Your task to perform on an android device: Search for macbook pro 15 inch on target, select the first entry, and add it to the cart. Image 0: 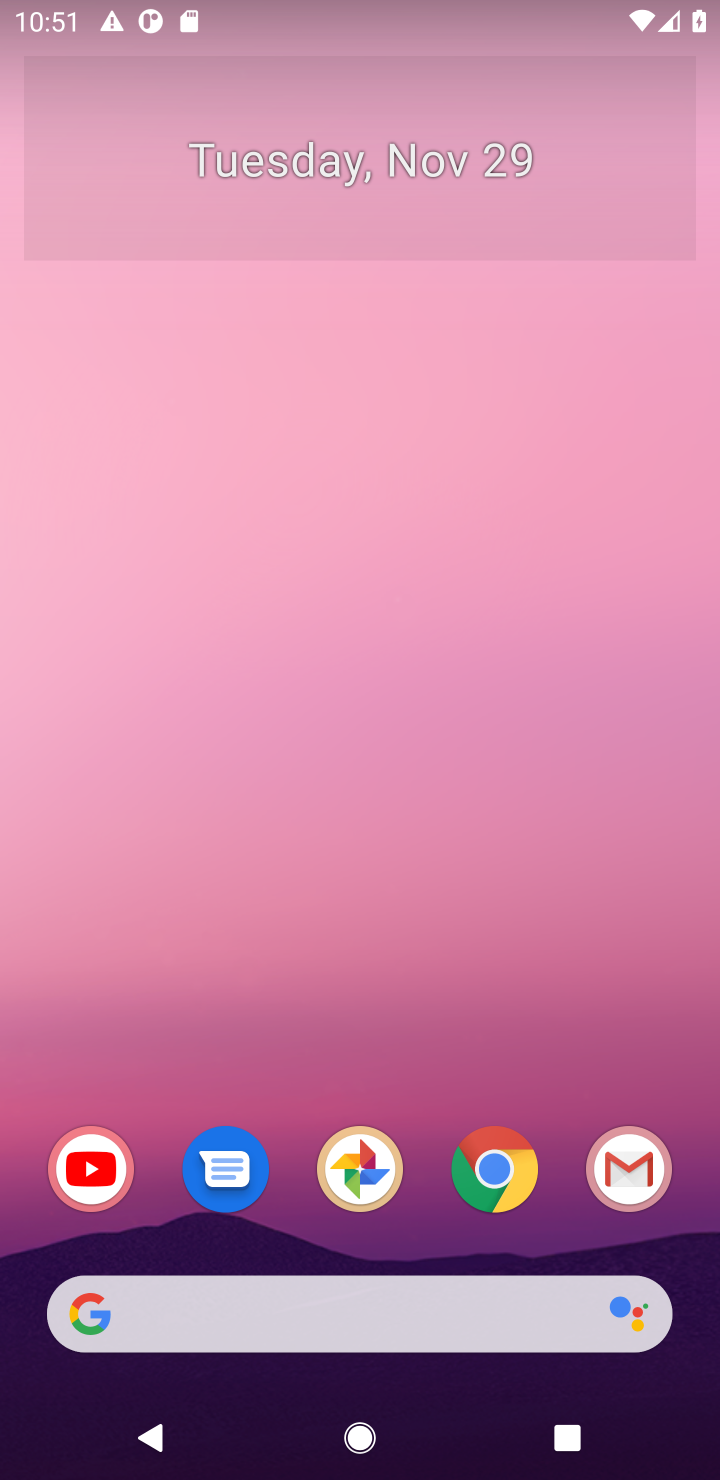
Step 0: click (351, 1299)
Your task to perform on an android device: Search for macbook pro 15 inch on target, select the first entry, and add it to the cart. Image 1: 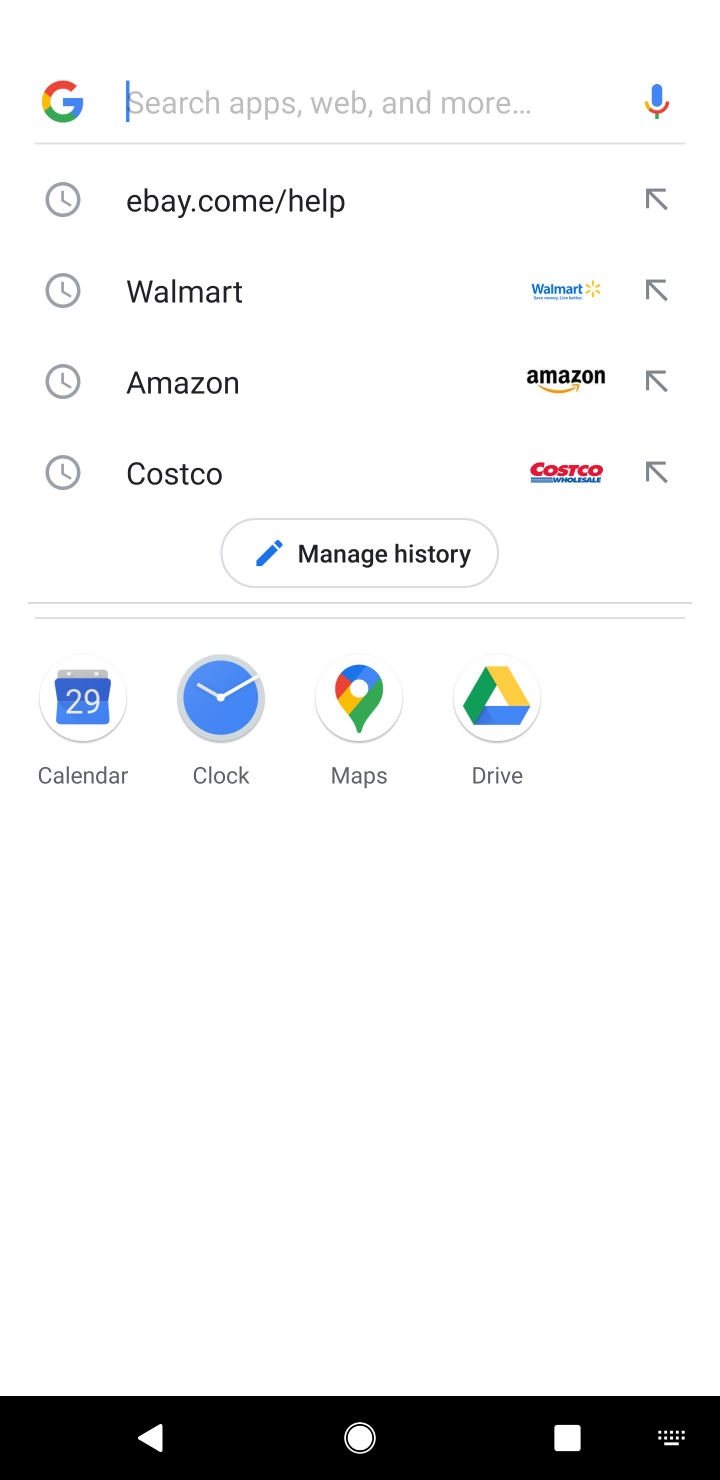
Step 1: type "target"
Your task to perform on an android device: Search for macbook pro 15 inch on target, select the first entry, and add it to the cart. Image 2: 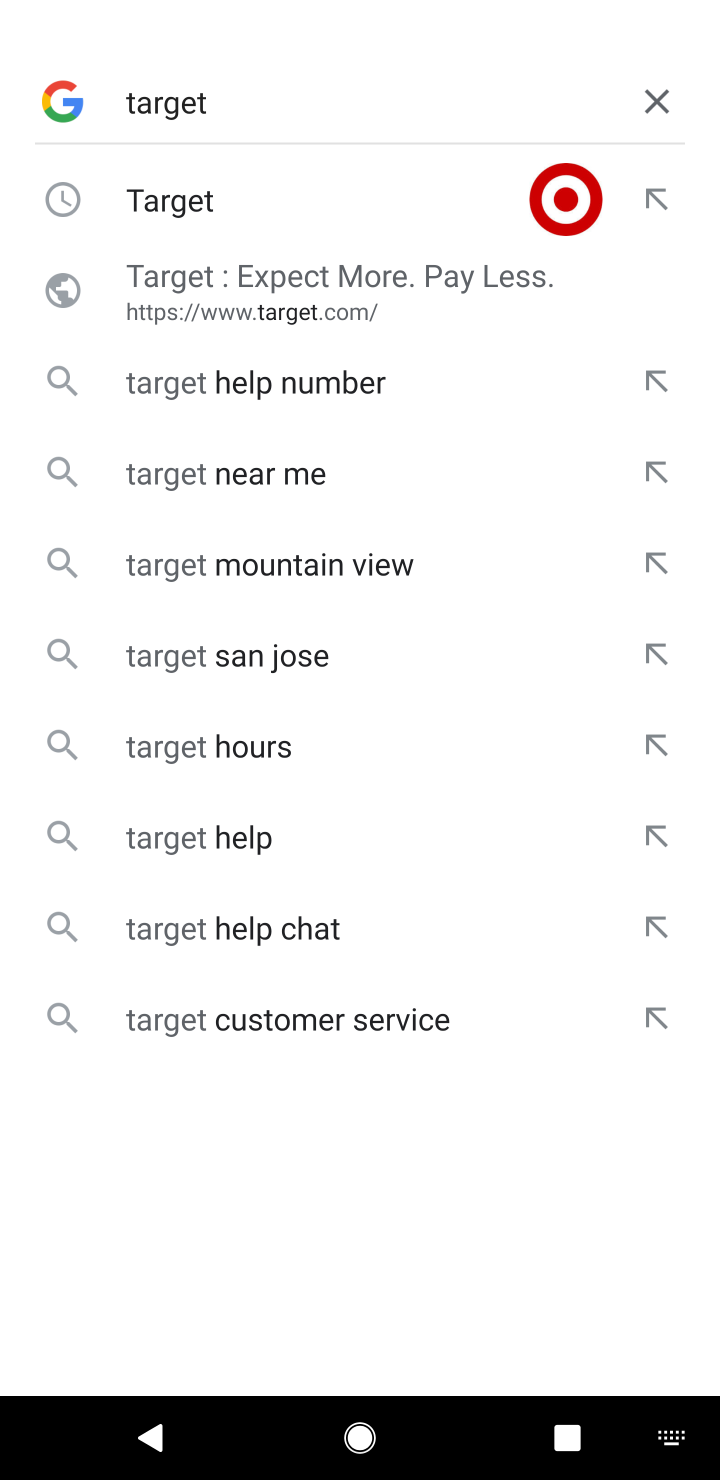
Step 2: click (307, 209)
Your task to perform on an android device: Search for macbook pro 15 inch on target, select the first entry, and add it to the cart. Image 3: 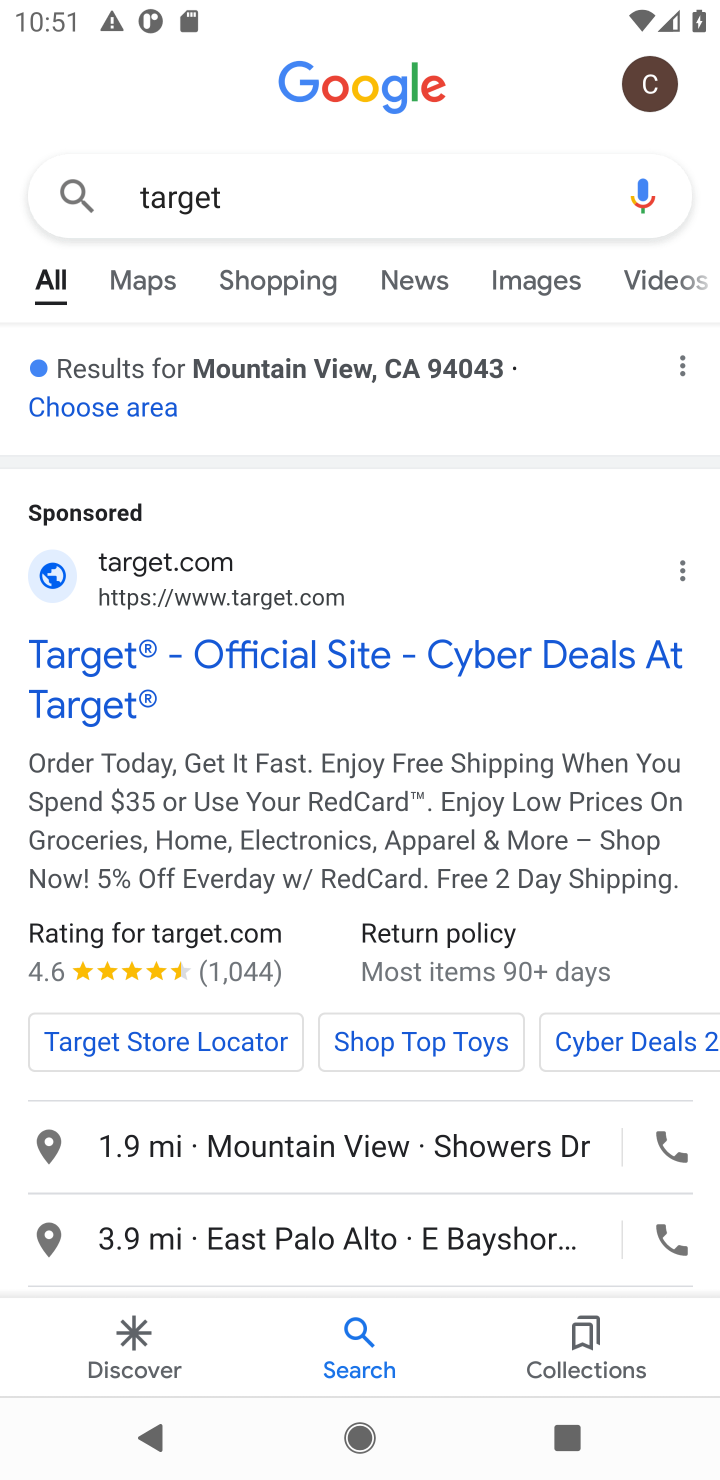
Step 3: click (193, 731)
Your task to perform on an android device: Search for macbook pro 15 inch on target, select the first entry, and add it to the cart. Image 4: 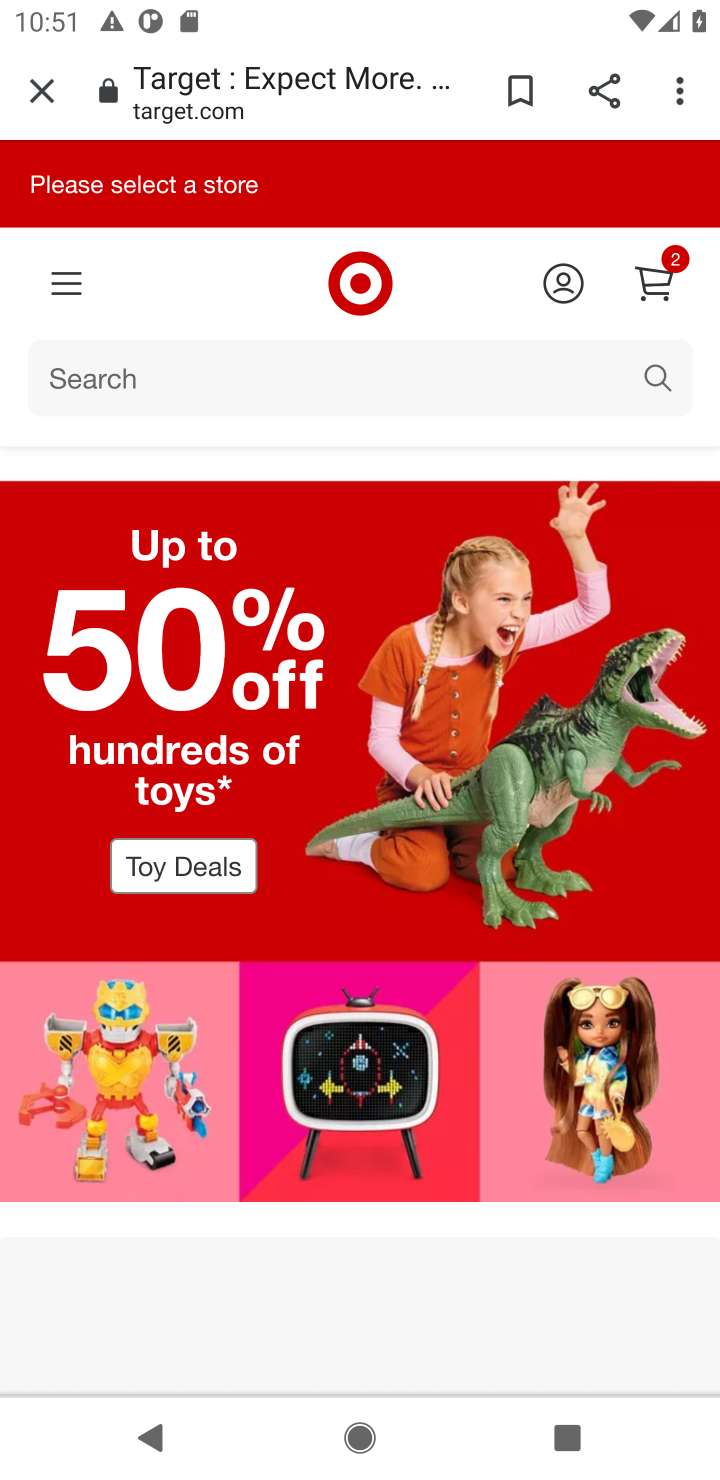
Step 4: click (73, 393)
Your task to perform on an android device: Search for macbook pro 15 inch on target, select the first entry, and add it to the cart. Image 5: 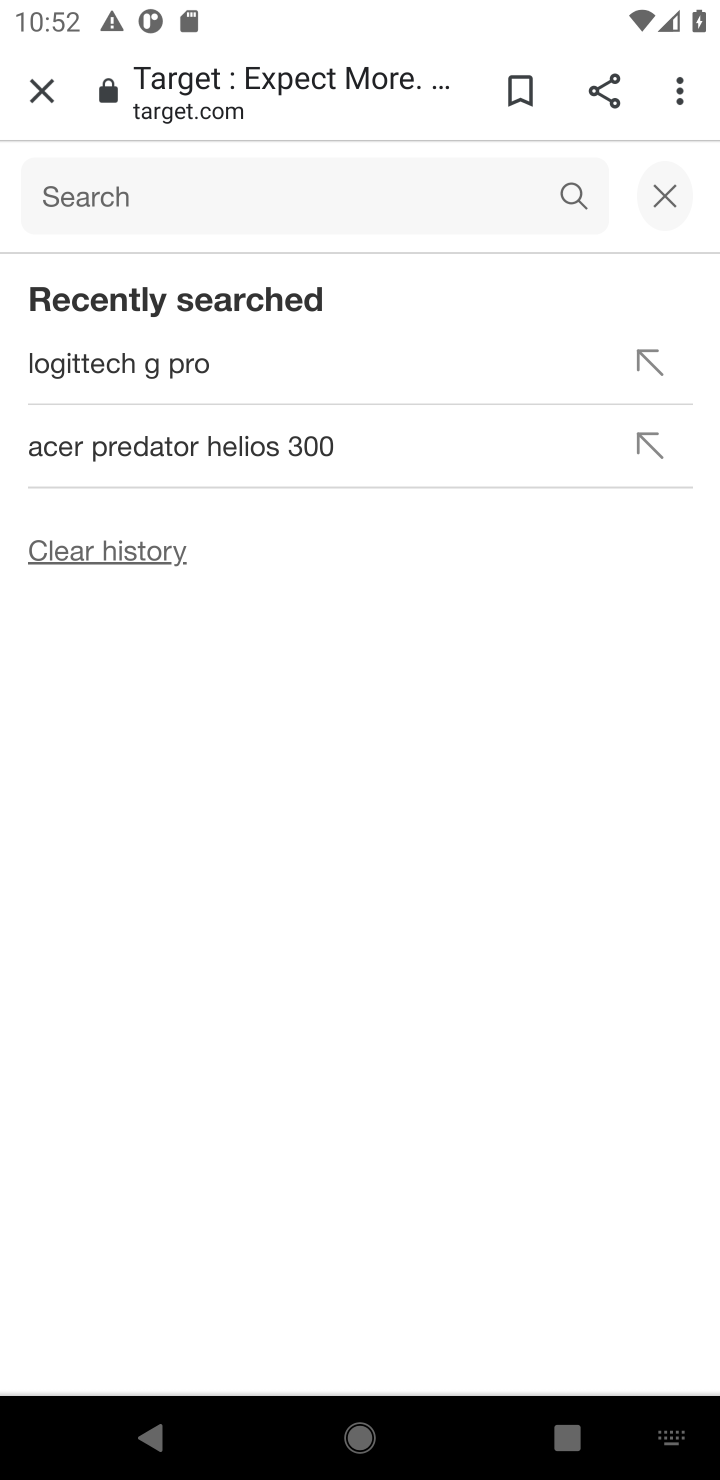
Step 5: type "macbook pro 15"
Your task to perform on an android device: Search for macbook pro 15 inch on target, select the first entry, and add it to the cart. Image 6: 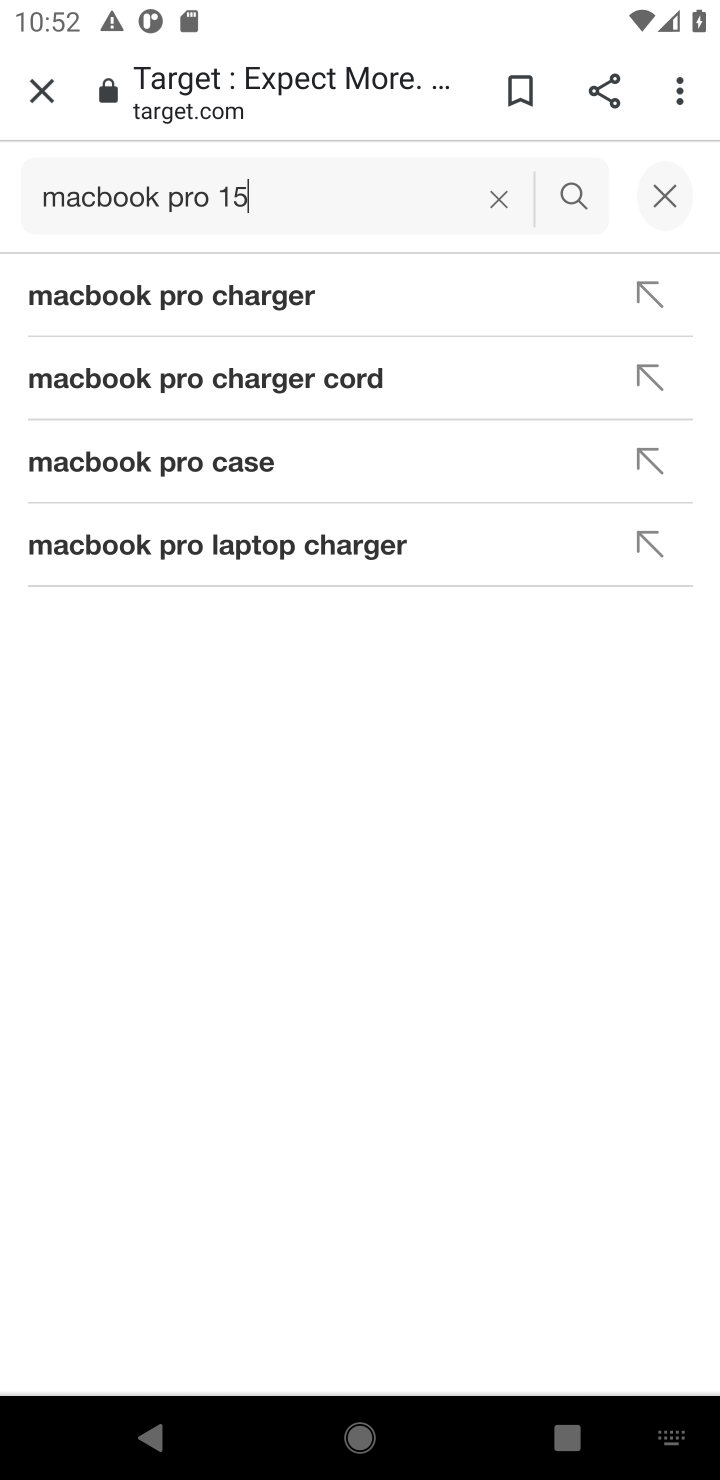
Step 6: click (568, 184)
Your task to perform on an android device: Search for macbook pro 15 inch on target, select the first entry, and add it to the cart. Image 7: 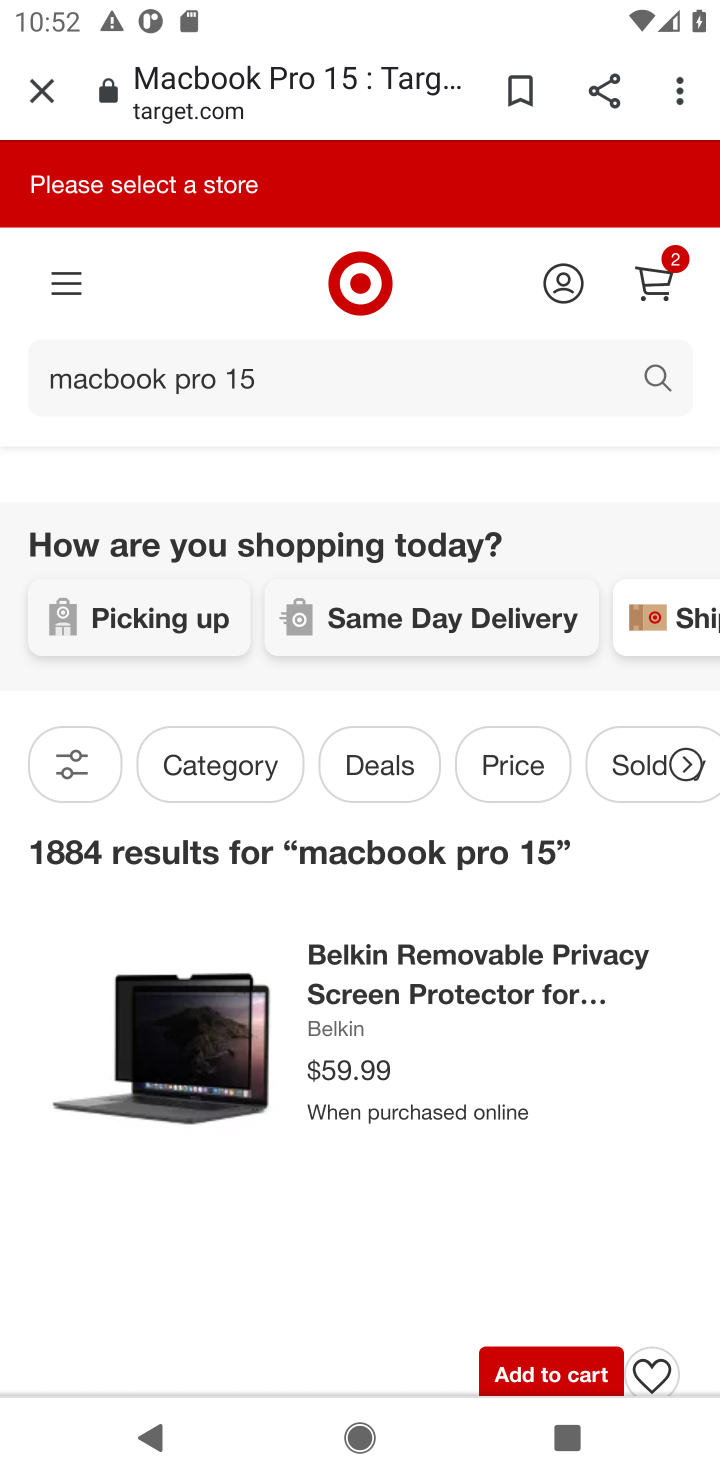
Step 7: click (559, 1387)
Your task to perform on an android device: Search for macbook pro 15 inch on target, select the first entry, and add it to the cart. Image 8: 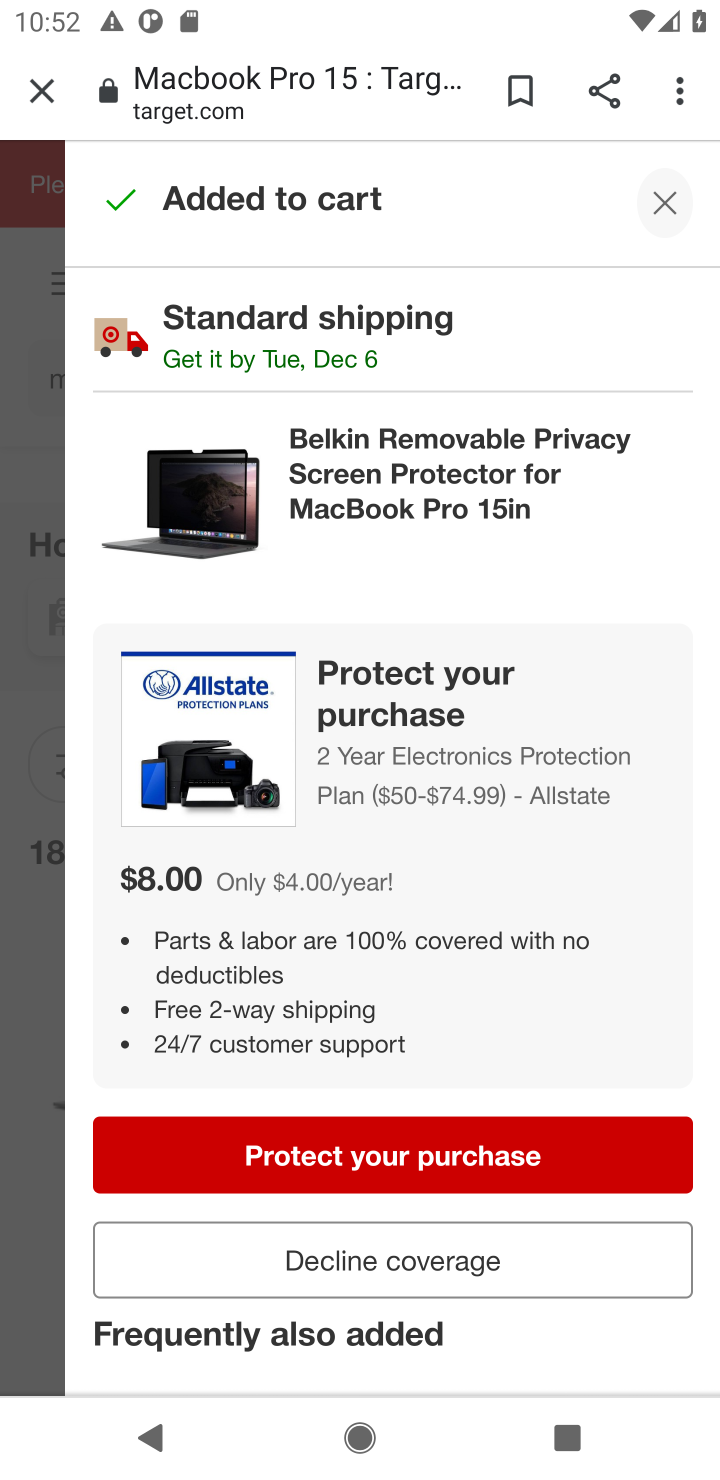
Step 8: task complete